Your task to perform on an android device: Go to privacy settings Image 0: 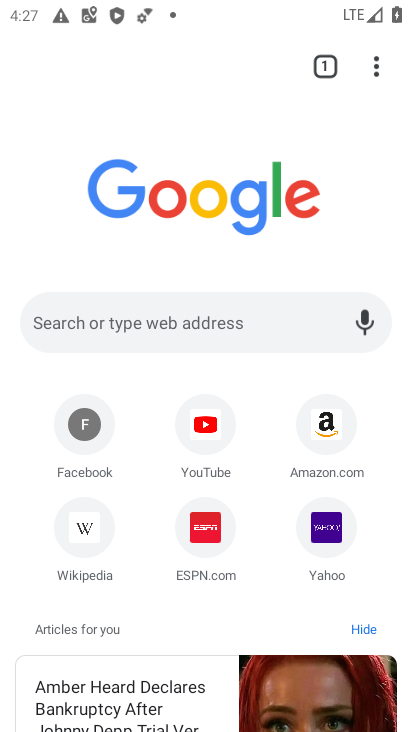
Step 0: press home button
Your task to perform on an android device: Go to privacy settings Image 1: 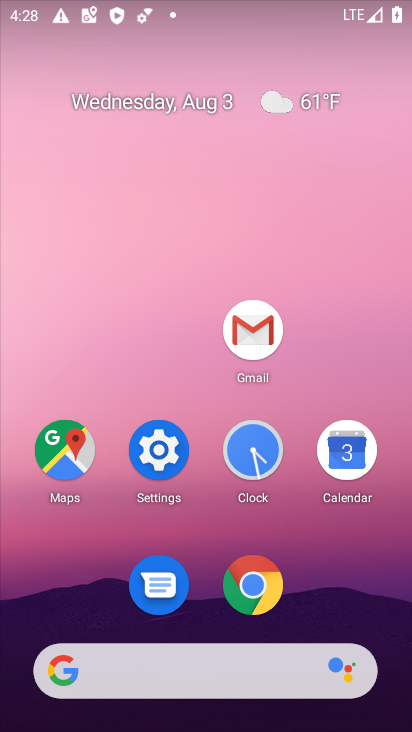
Step 1: click (154, 454)
Your task to perform on an android device: Go to privacy settings Image 2: 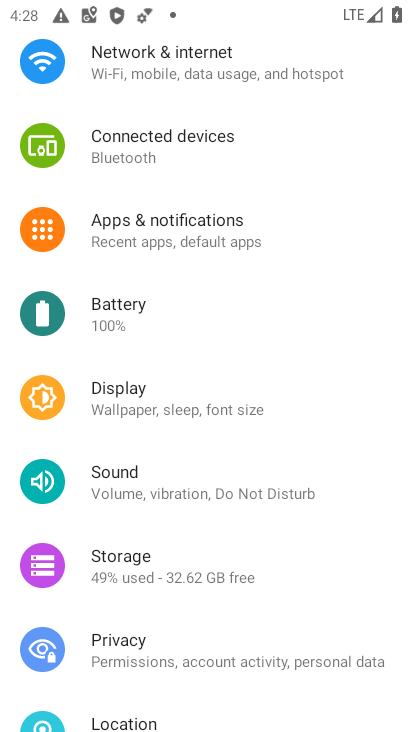
Step 2: drag from (163, 714) to (192, 431)
Your task to perform on an android device: Go to privacy settings Image 3: 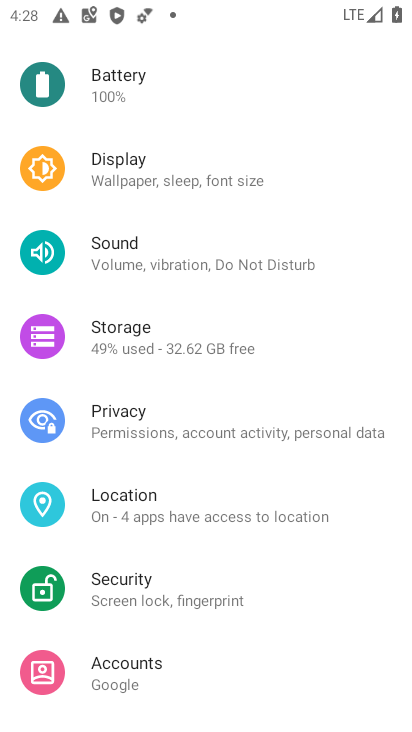
Step 3: click (120, 414)
Your task to perform on an android device: Go to privacy settings Image 4: 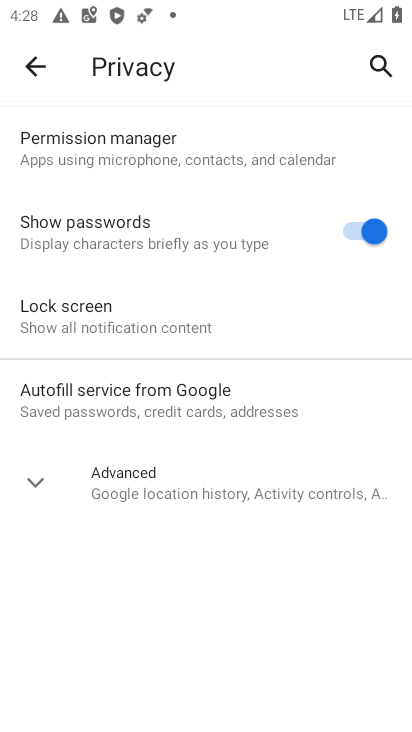
Step 4: click (43, 477)
Your task to perform on an android device: Go to privacy settings Image 5: 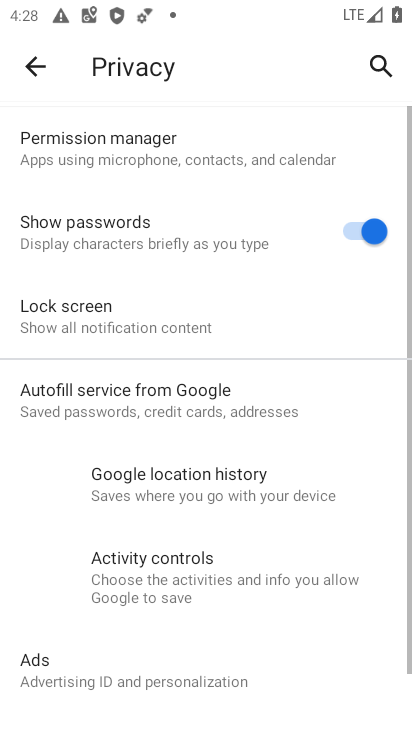
Step 5: task complete